Your task to perform on an android device: open chrome and create a bookmark for the current page Image 0: 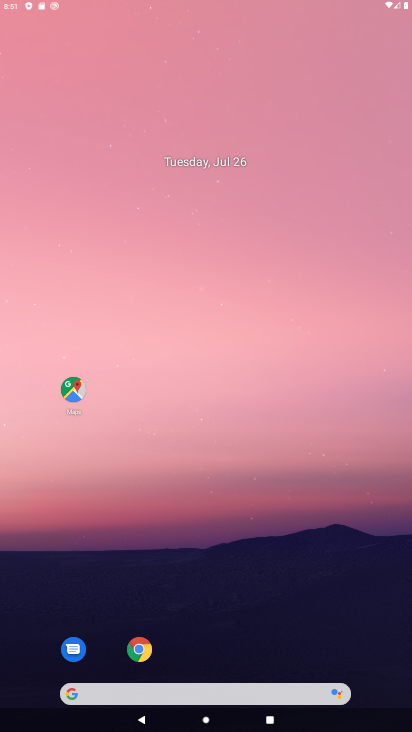
Step 0: press home button
Your task to perform on an android device: open chrome and create a bookmark for the current page Image 1: 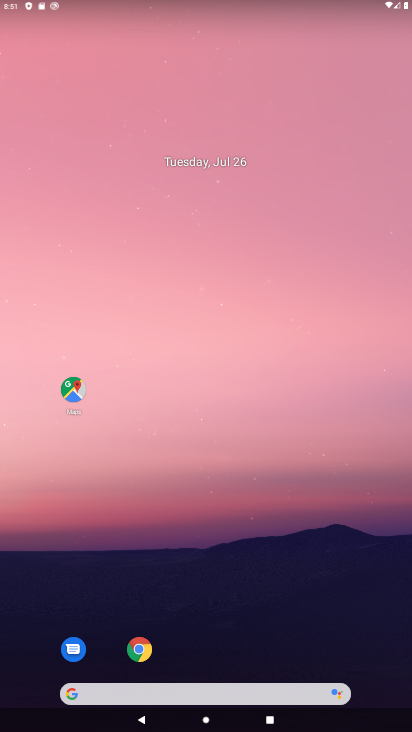
Step 1: drag from (327, 618) to (324, 169)
Your task to perform on an android device: open chrome and create a bookmark for the current page Image 2: 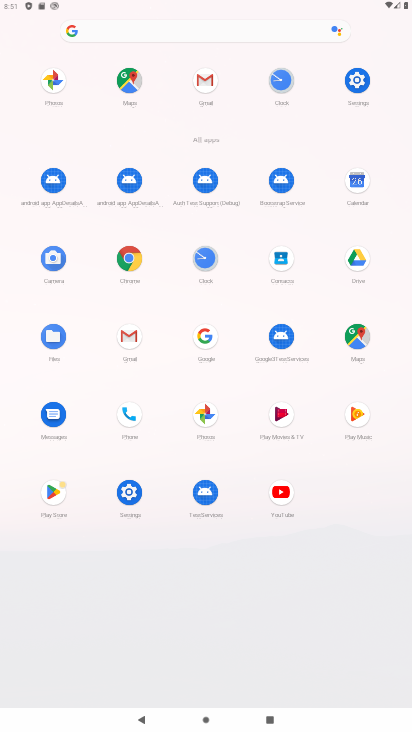
Step 2: click (119, 259)
Your task to perform on an android device: open chrome and create a bookmark for the current page Image 3: 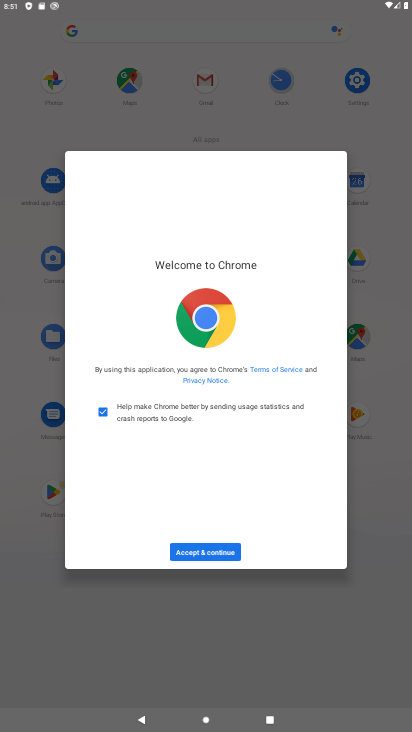
Step 3: click (191, 557)
Your task to perform on an android device: open chrome and create a bookmark for the current page Image 4: 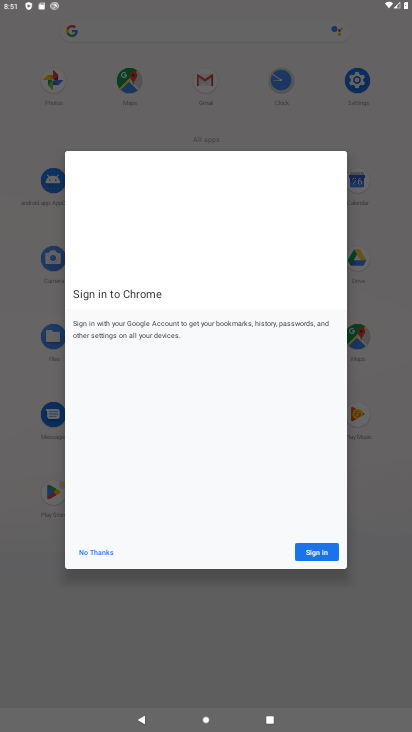
Step 4: click (313, 555)
Your task to perform on an android device: open chrome and create a bookmark for the current page Image 5: 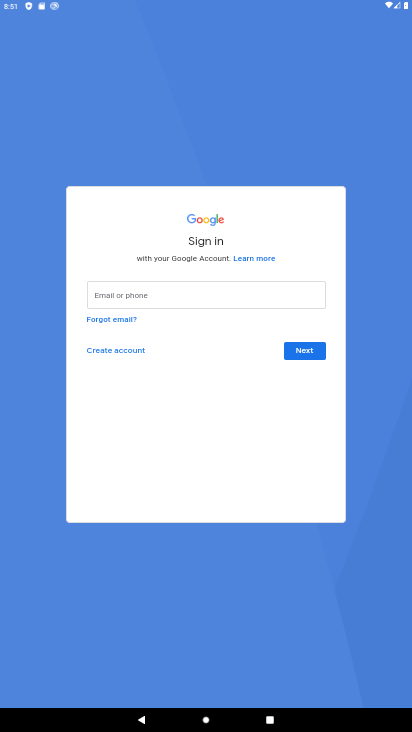
Step 5: task complete